Your task to perform on an android device: Open maps Image 0: 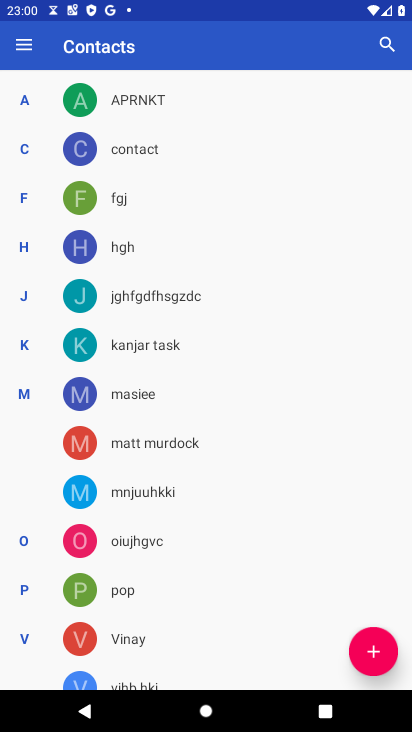
Step 0: press home button
Your task to perform on an android device: Open maps Image 1: 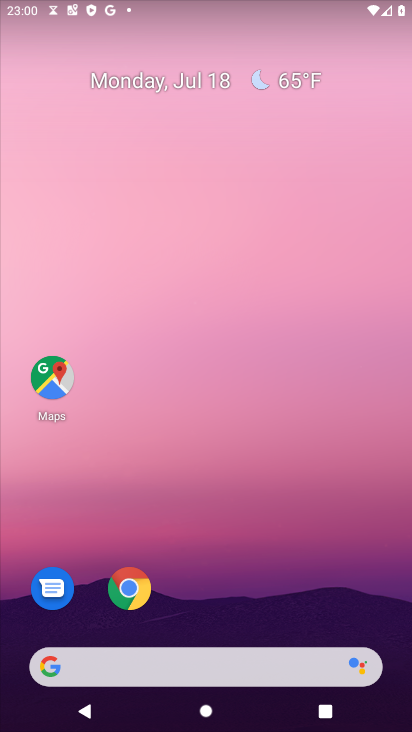
Step 1: click (53, 378)
Your task to perform on an android device: Open maps Image 2: 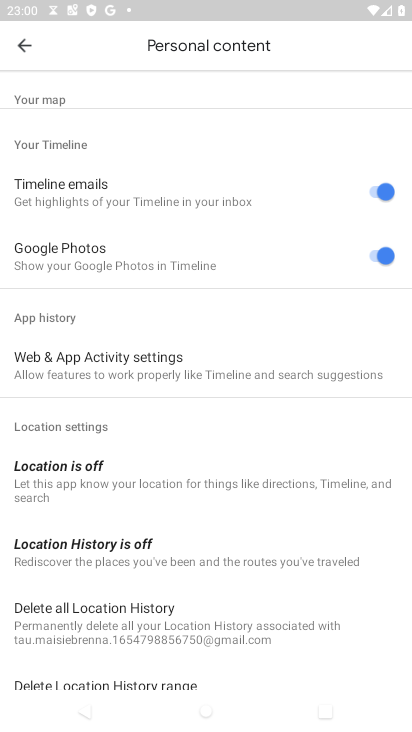
Step 2: task complete